Your task to perform on an android device: toggle javascript in the chrome app Image 0: 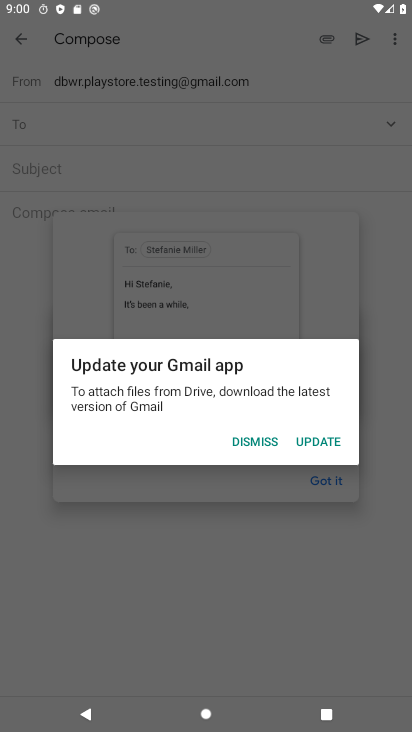
Step 0: click (327, 485)
Your task to perform on an android device: toggle javascript in the chrome app Image 1: 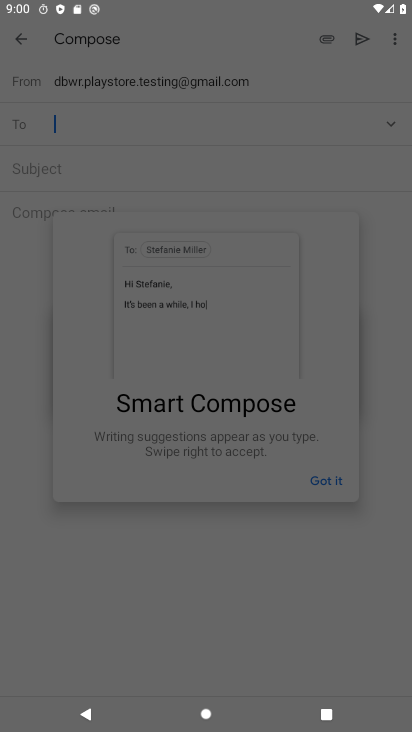
Step 1: press home button
Your task to perform on an android device: toggle javascript in the chrome app Image 2: 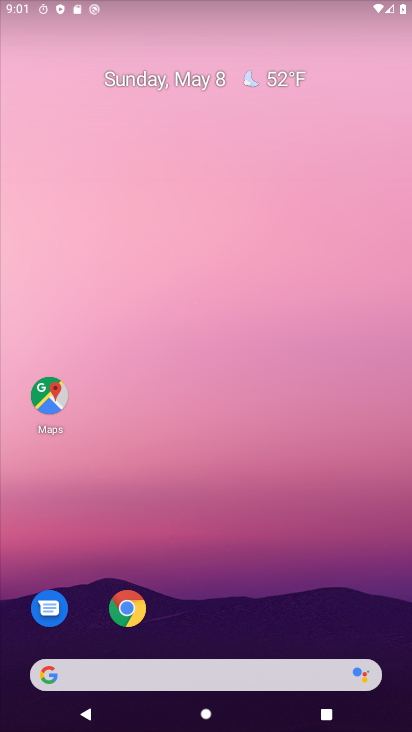
Step 2: drag from (312, 658) to (409, 72)
Your task to perform on an android device: toggle javascript in the chrome app Image 3: 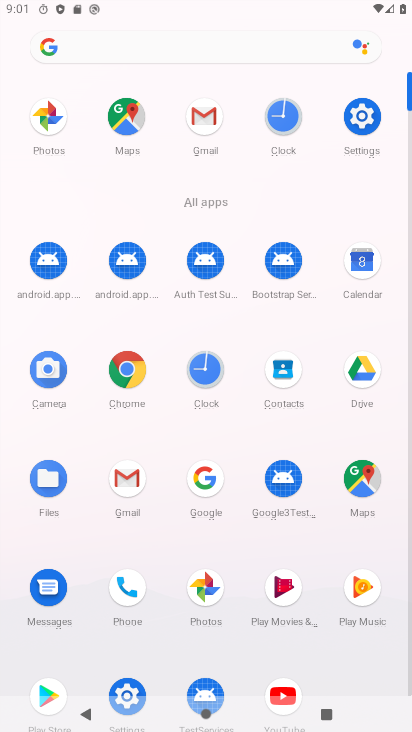
Step 3: drag from (315, 624) to (353, 126)
Your task to perform on an android device: toggle javascript in the chrome app Image 4: 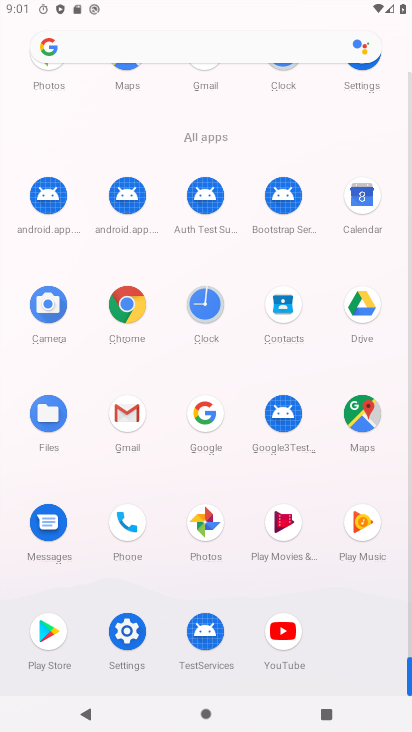
Step 4: click (118, 300)
Your task to perform on an android device: toggle javascript in the chrome app Image 5: 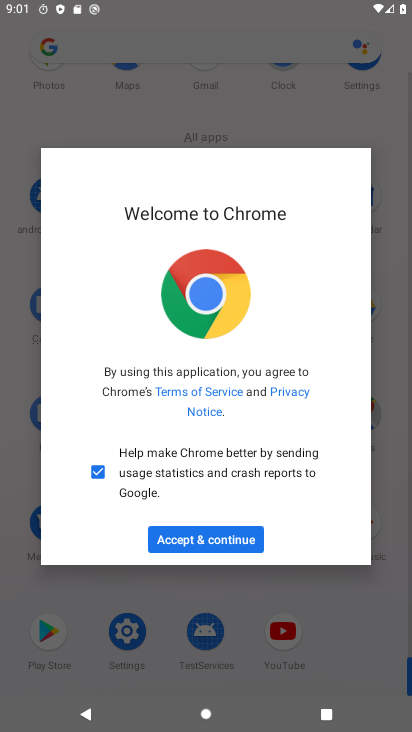
Step 5: click (189, 543)
Your task to perform on an android device: toggle javascript in the chrome app Image 6: 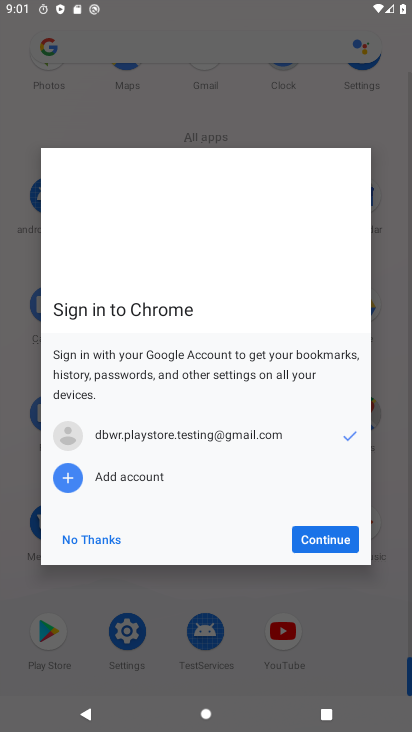
Step 6: click (68, 550)
Your task to perform on an android device: toggle javascript in the chrome app Image 7: 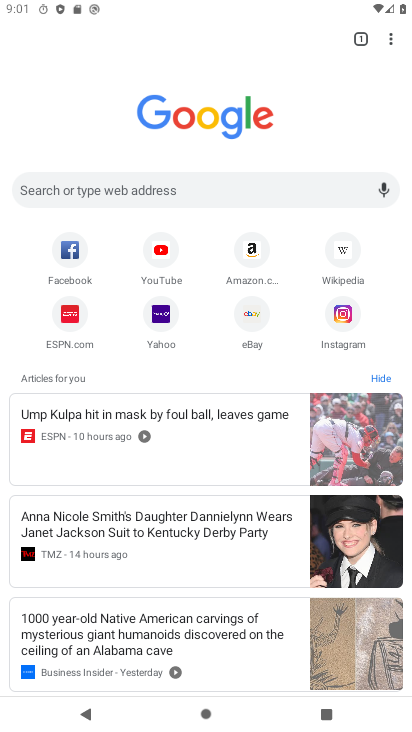
Step 7: drag from (391, 34) to (287, 329)
Your task to perform on an android device: toggle javascript in the chrome app Image 8: 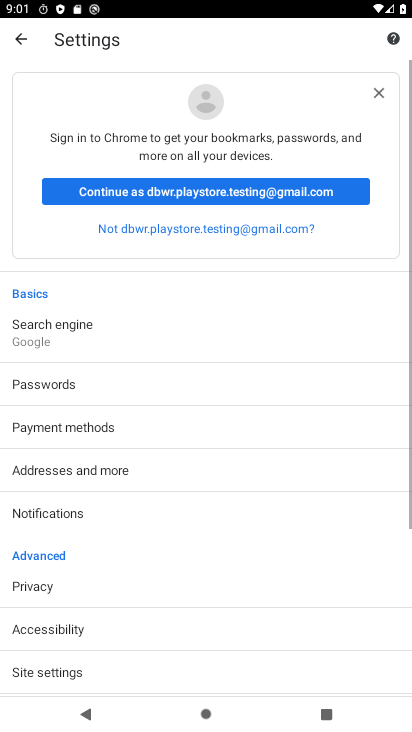
Step 8: drag from (150, 611) to (213, 249)
Your task to perform on an android device: toggle javascript in the chrome app Image 9: 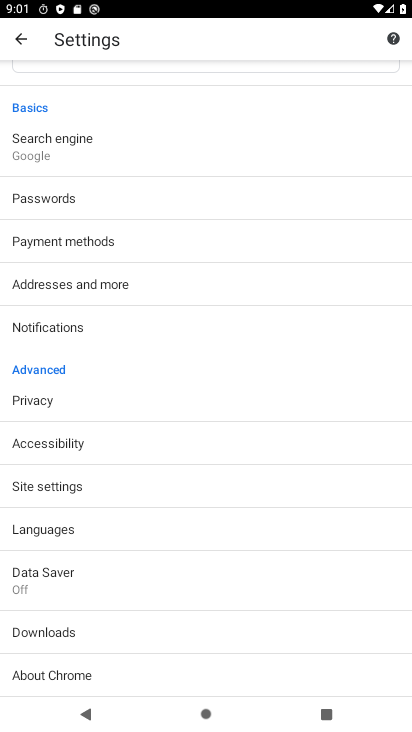
Step 9: click (107, 480)
Your task to perform on an android device: toggle javascript in the chrome app Image 10: 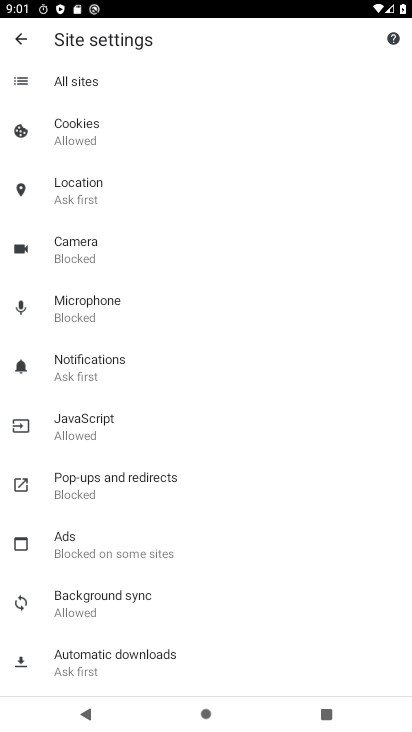
Step 10: click (127, 422)
Your task to perform on an android device: toggle javascript in the chrome app Image 11: 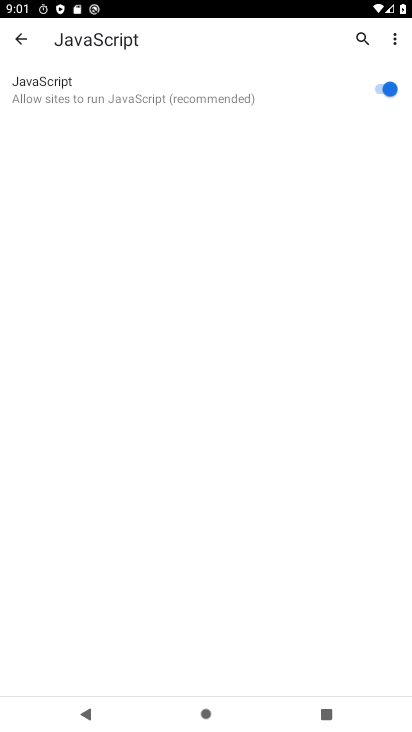
Step 11: click (382, 88)
Your task to perform on an android device: toggle javascript in the chrome app Image 12: 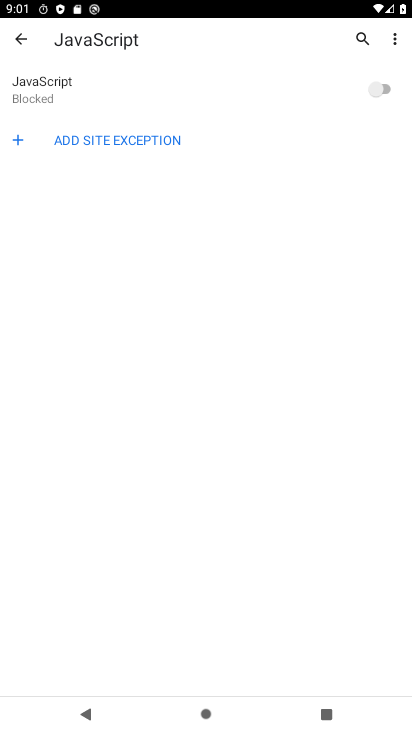
Step 12: task complete